Your task to perform on an android device: open app "Google Translate" (install if not already installed) Image 0: 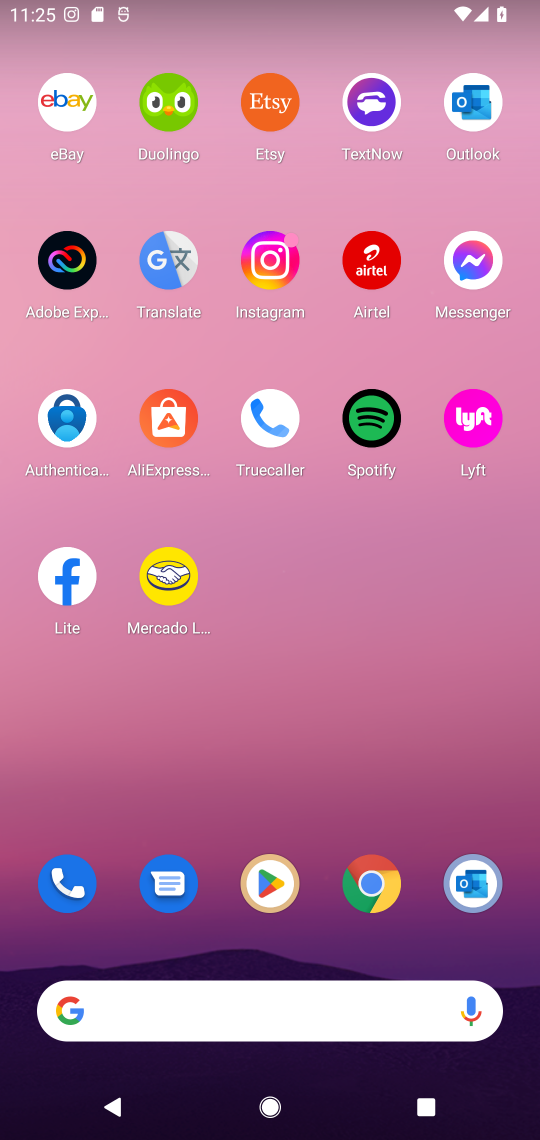
Step 0: drag from (312, 953) to (300, 102)
Your task to perform on an android device: open app "Google Translate" (install if not already installed) Image 1: 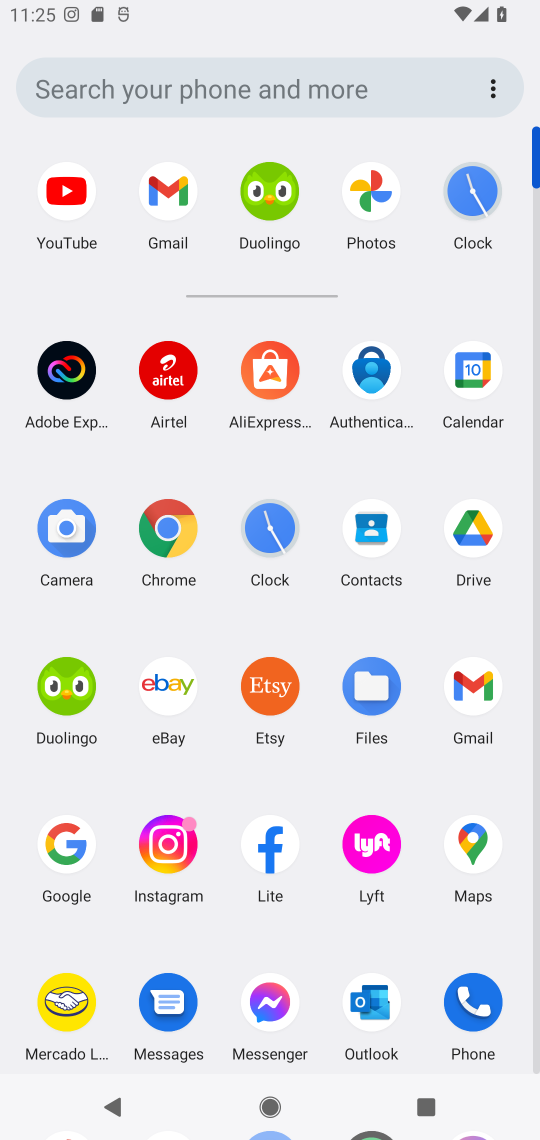
Step 1: drag from (210, 691) to (187, 419)
Your task to perform on an android device: open app "Google Translate" (install if not already installed) Image 2: 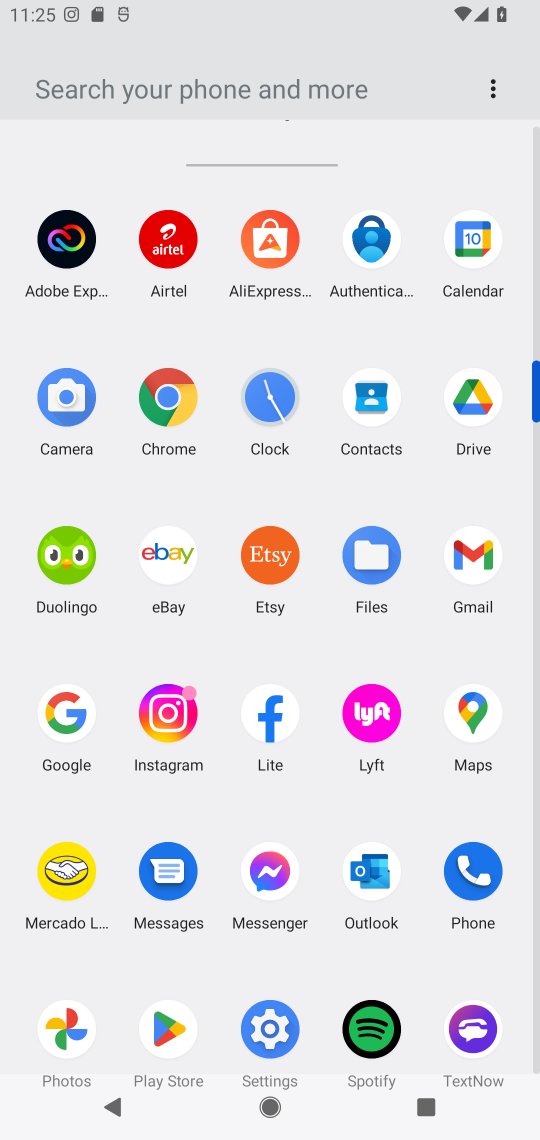
Step 2: click (158, 1023)
Your task to perform on an android device: open app "Google Translate" (install if not already installed) Image 3: 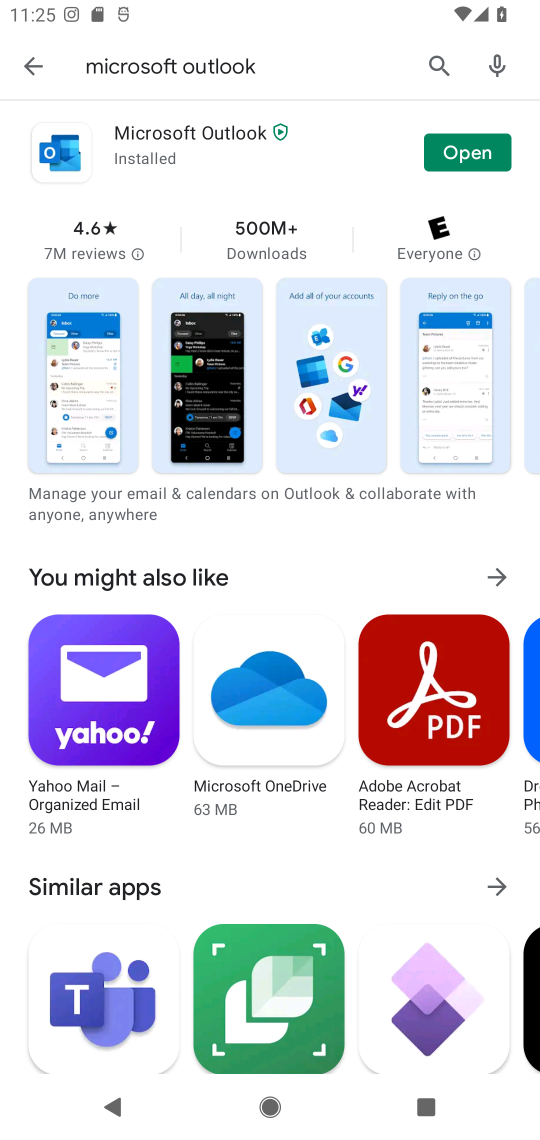
Step 3: click (434, 62)
Your task to perform on an android device: open app "Google Translate" (install if not already installed) Image 4: 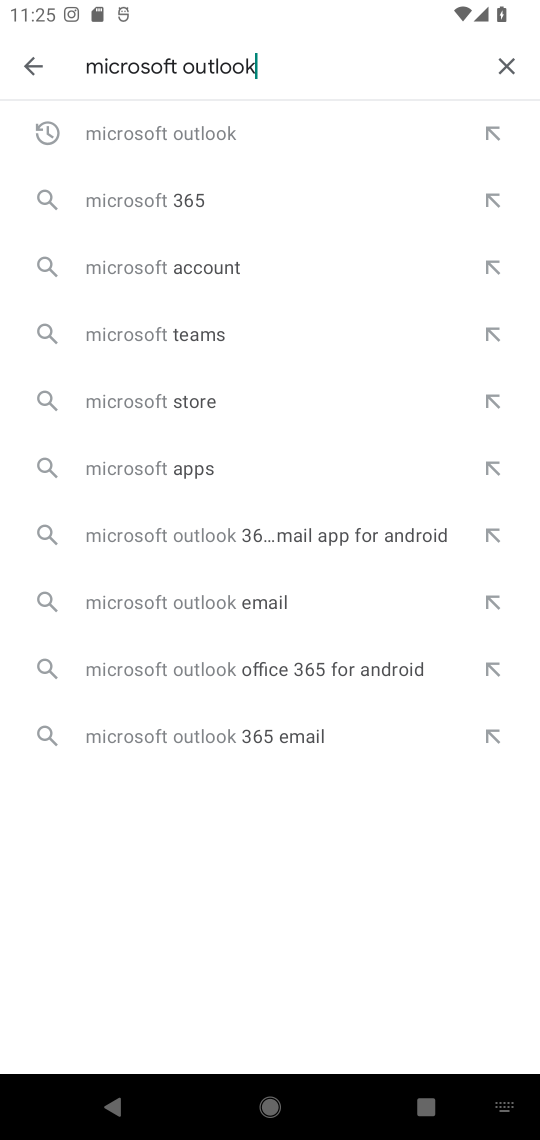
Step 4: click (439, 59)
Your task to perform on an android device: open app "Google Translate" (install if not already installed) Image 5: 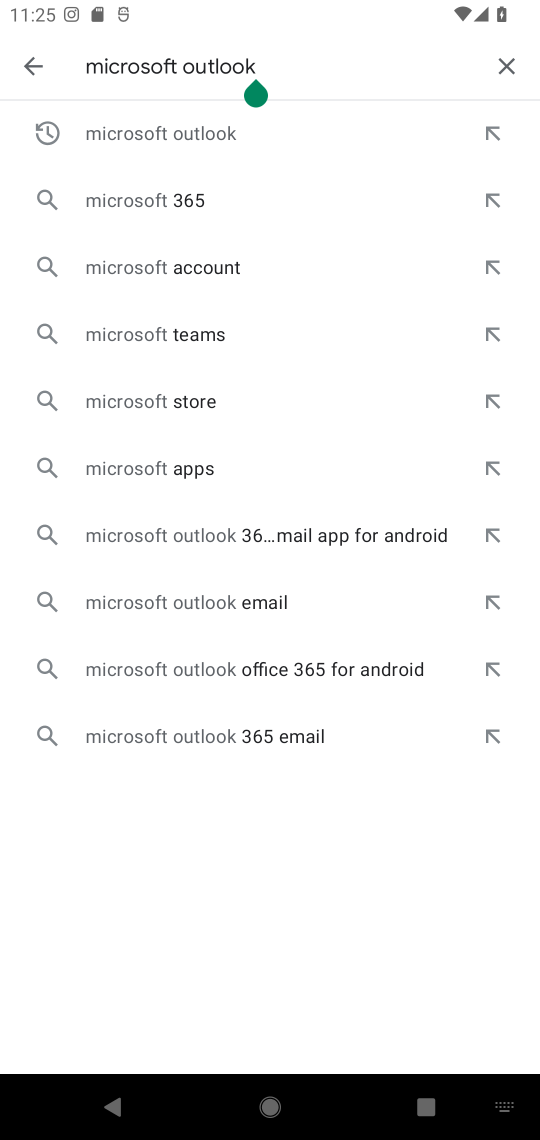
Step 5: click (511, 62)
Your task to perform on an android device: open app "Google Translate" (install if not already installed) Image 6: 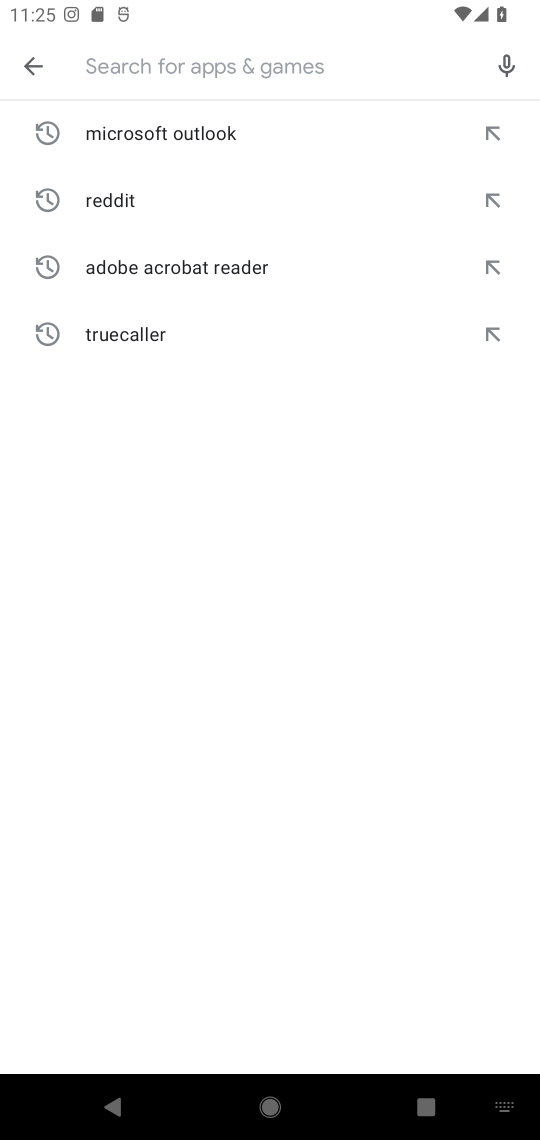
Step 6: type "Google Translate"
Your task to perform on an android device: open app "Google Translate" (install if not already installed) Image 7: 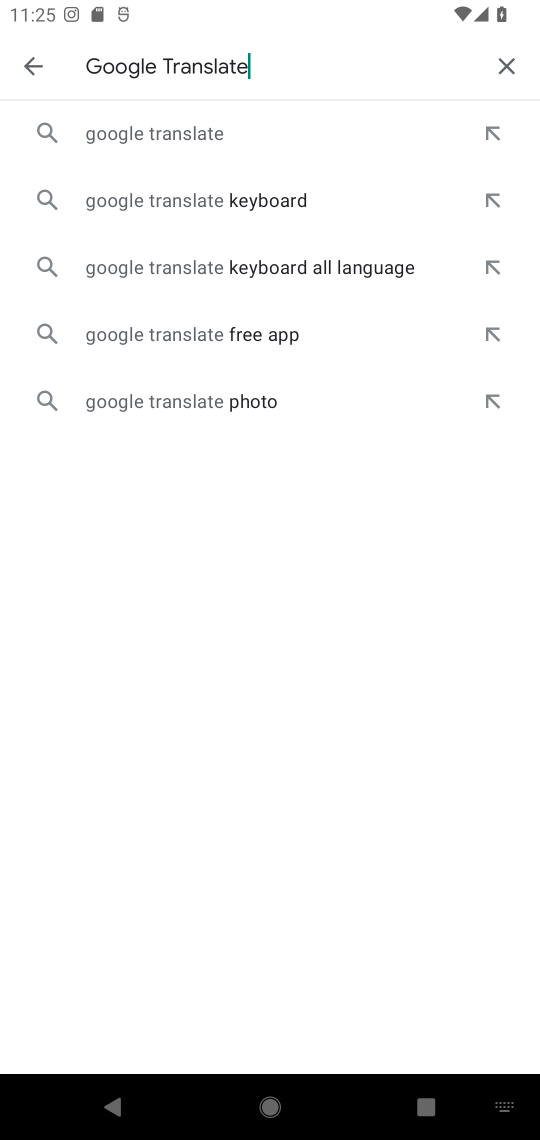
Step 7: click (179, 135)
Your task to perform on an android device: open app "Google Translate" (install if not already installed) Image 8: 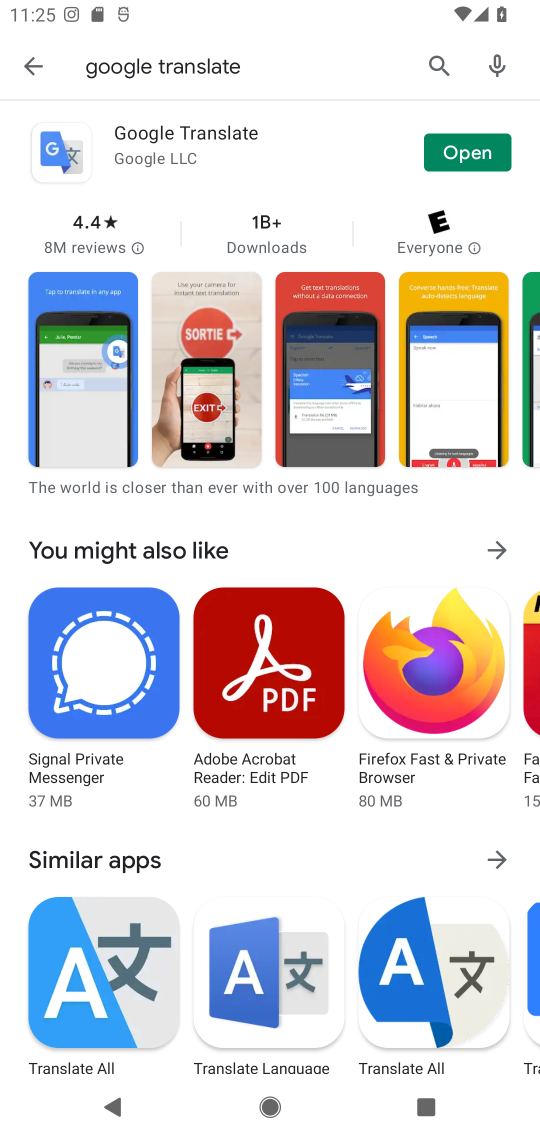
Step 8: click (483, 165)
Your task to perform on an android device: open app "Google Translate" (install if not already installed) Image 9: 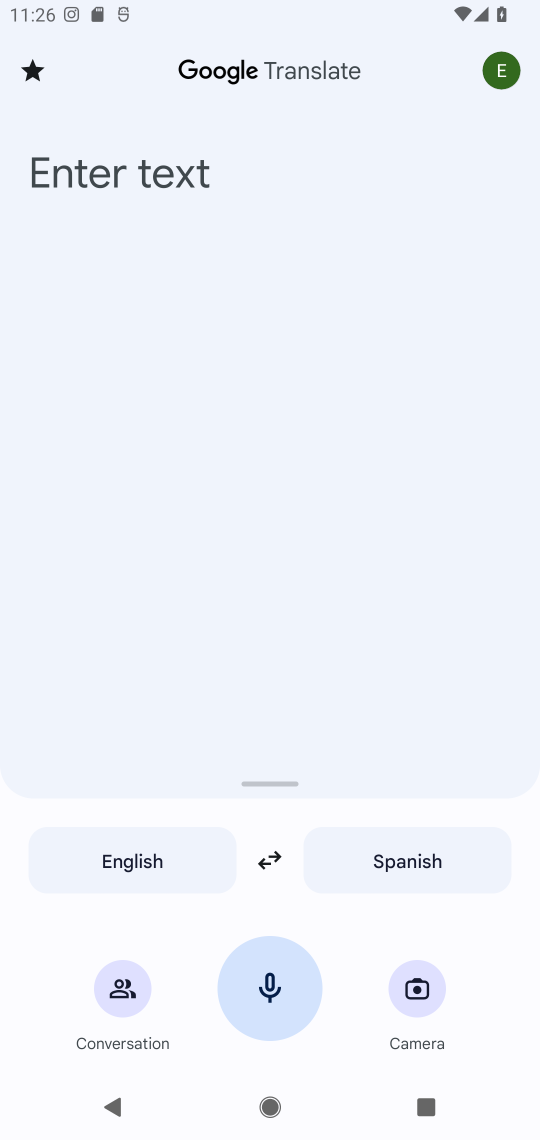
Step 9: task complete